Your task to perform on an android device: open wifi settings Image 0: 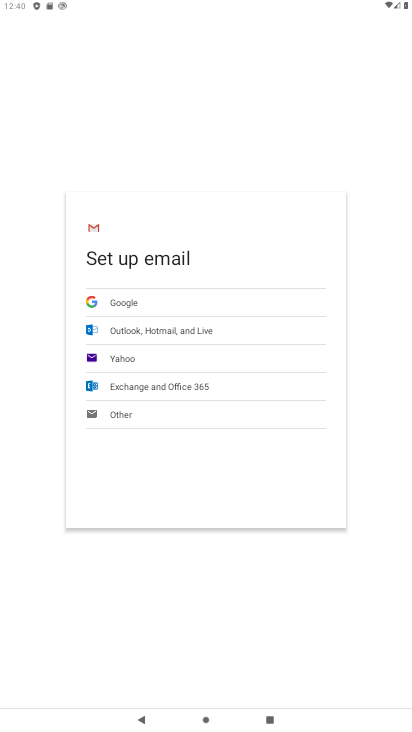
Step 0: press home button
Your task to perform on an android device: open wifi settings Image 1: 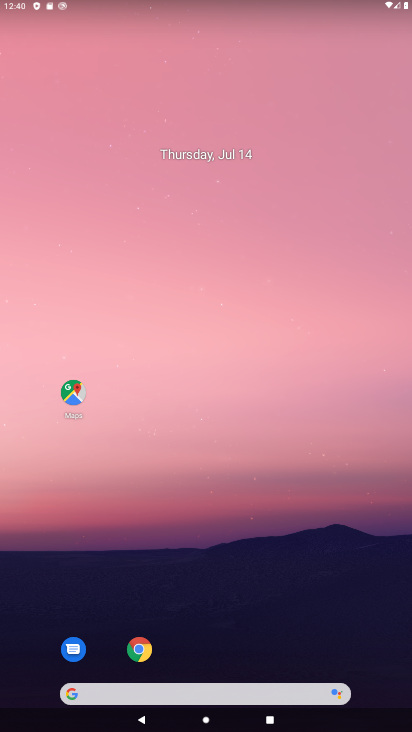
Step 1: drag from (261, 646) to (246, 91)
Your task to perform on an android device: open wifi settings Image 2: 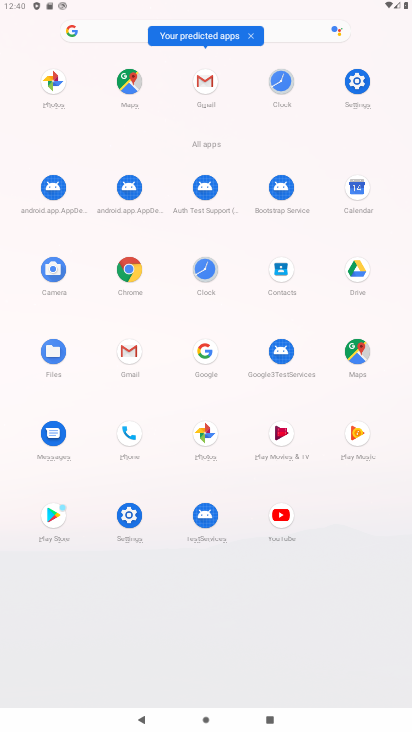
Step 2: click (357, 82)
Your task to perform on an android device: open wifi settings Image 3: 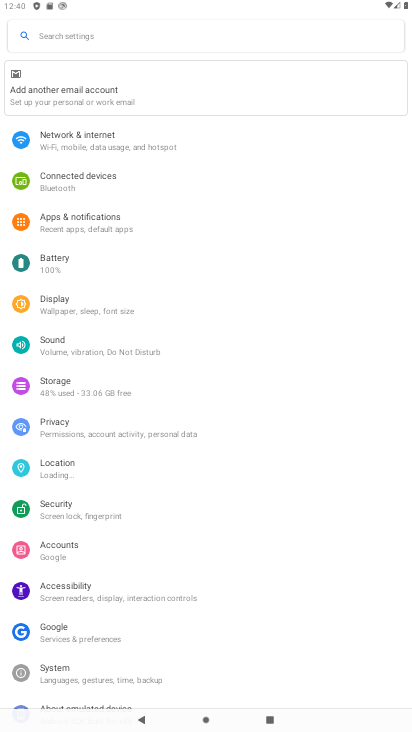
Step 3: click (125, 140)
Your task to perform on an android device: open wifi settings Image 4: 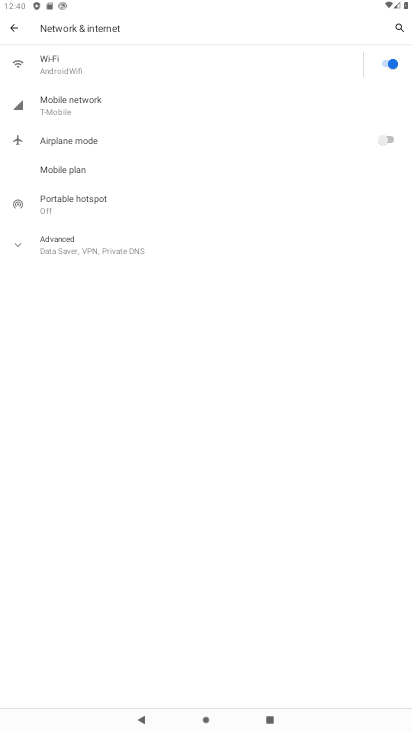
Step 4: click (108, 66)
Your task to perform on an android device: open wifi settings Image 5: 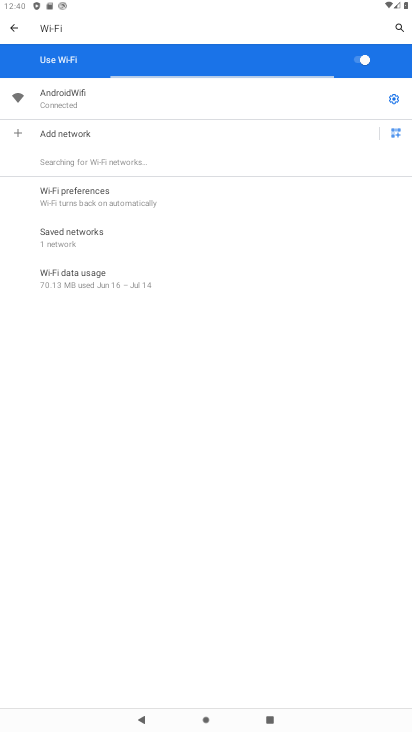
Step 5: task complete